Your task to perform on an android device: Open notification settings Image 0: 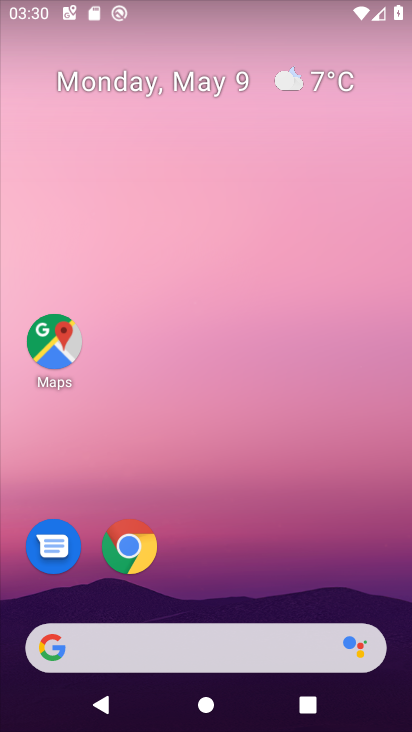
Step 0: drag from (288, 604) to (295, 16)
Your task to perform on an android device: Open notification settings Image 1: 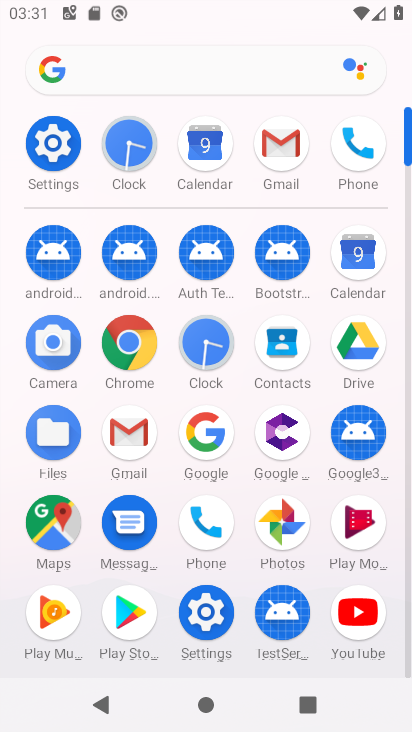
Step 1: click (54, 135)
Your task to perform on an android device: Open notification settings Image 2: 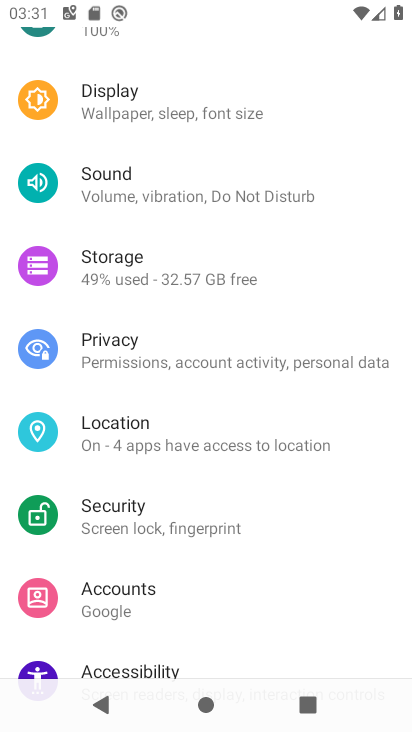
Step 2: drag from (237, 278) to (220, 625)
Your task to perform on an android device: Open notification settings Image 3: 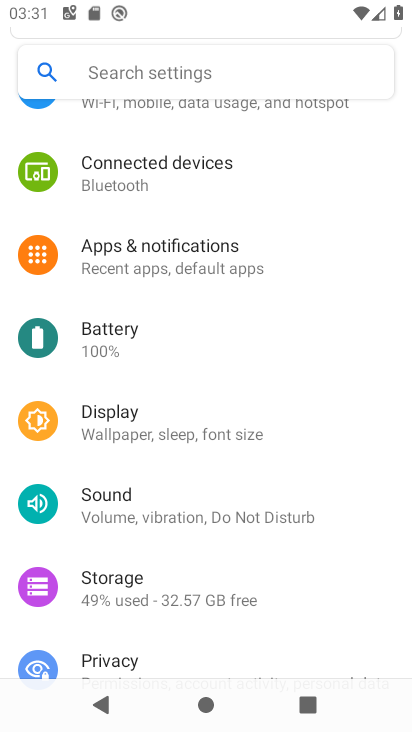
Step 3: click (171, 253)
Your task to perform on an android device: Open notification settings Image 4: 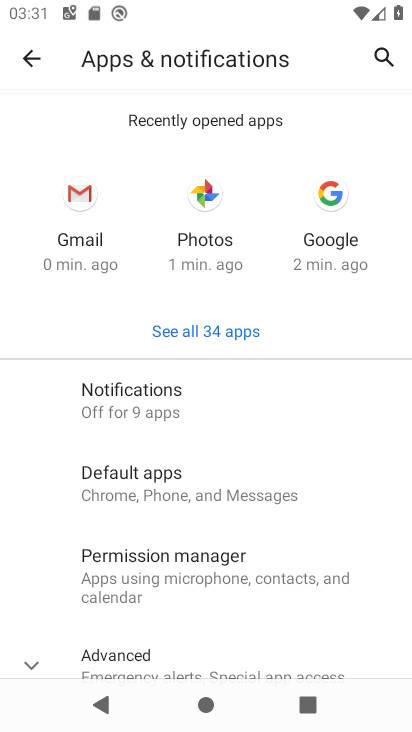
Step 4: click (173, 402)
Your task to perform on an android device: Open notification settings Image 5: 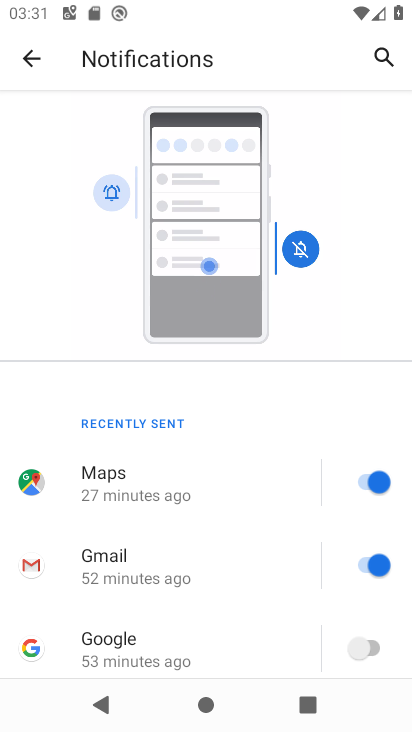
Step 5: task complete